Your task to perform on an android device: Go to settings Image 0: 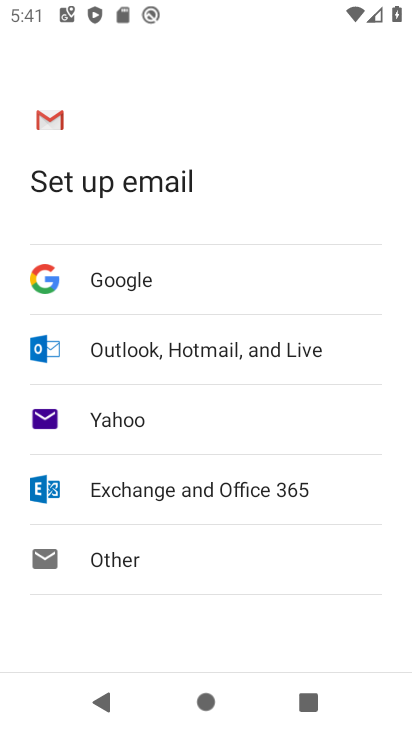
Step 0: press back button
Your task to perform on an android device: Go to settings Image 1: 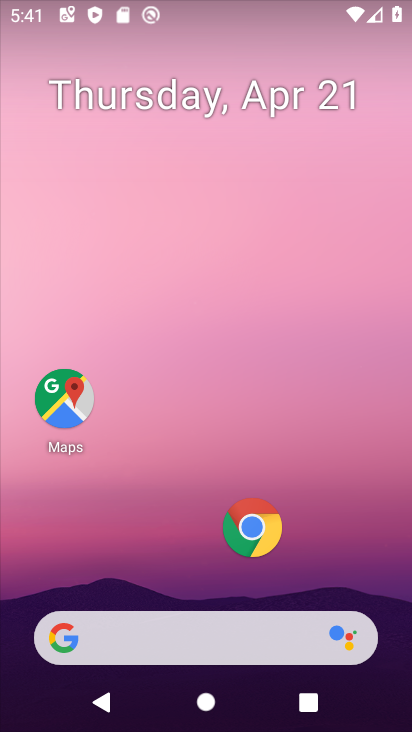
Step 1: drag from (123, 441) to (166, 36)
Your task to perform on an android device: Go to settings Image 2: 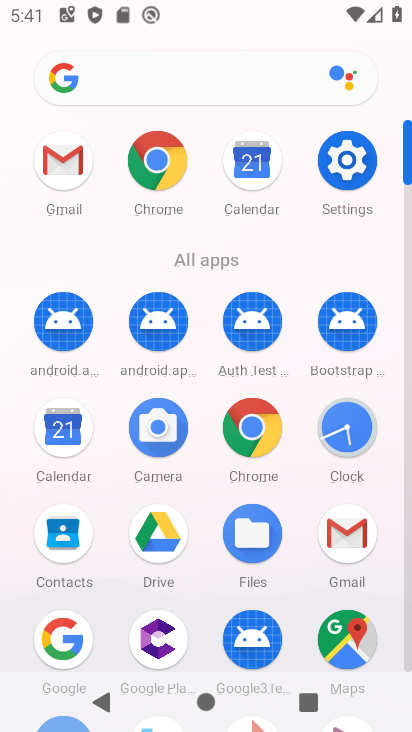
Step 2: click (350, 149)
Your task to perform on an android device: Go to settings Image 3: 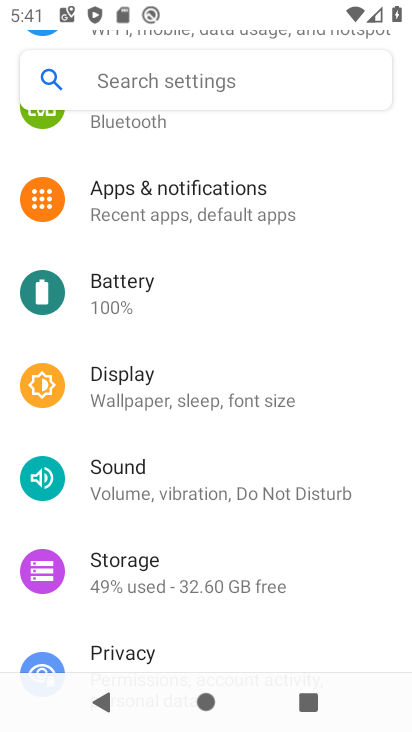
Step 3: task complete